Your task to perform on an android device: What's the US dollar exchange rate against the Brazilian Real? Image 0: 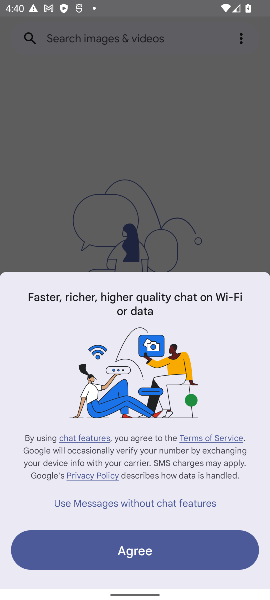
Step 0: press home button
Your task to perform on an android device: What's the US dollar exchange rate against the Brazilian Real? Image 1: 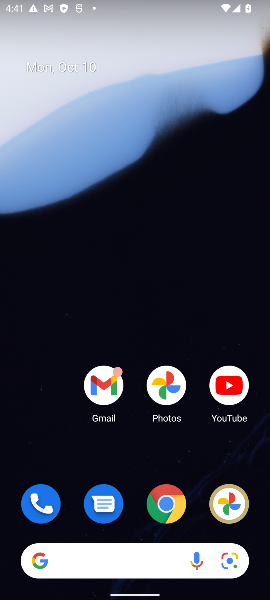
Step 1: drag from (129, 380) to (44, 318)
Your task to perform on an android device: What's the US dollar exchange rate against the Brazilian Real? Image 2: 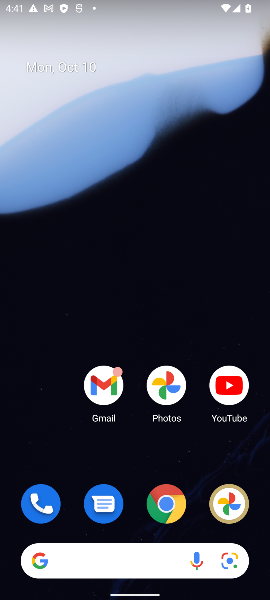
Step 2: drag from (159, 481) to (259, 11)
Your task to perform on an android device: What's the US dollar exchange rate against the Brazilian Real? Image 3: 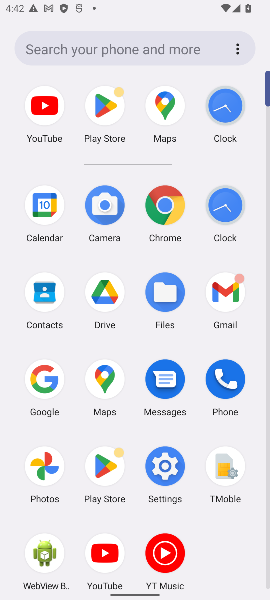
Step 3: click (153, 202)
Your task to perform on an android device: What's the US dollar exchange rate against the Brazilian Real? Image 4: 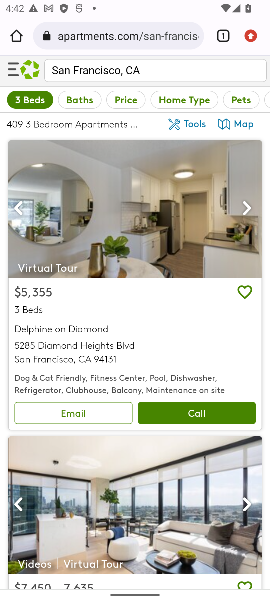
Step 4: click (98, 35)
Your task to perform on an android device: What's the US dollar exchange rate against the Brazilian Real? Image 5: 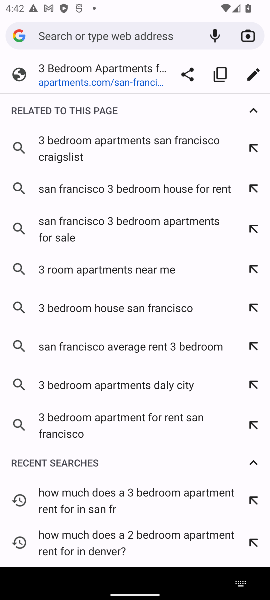
Step 5: type "What's the US dollar exchange rate against the Brazilian Real?"
Your task to perform on an android device: What's the US dollar exchange rate against the Brazilian Real? Image 6: 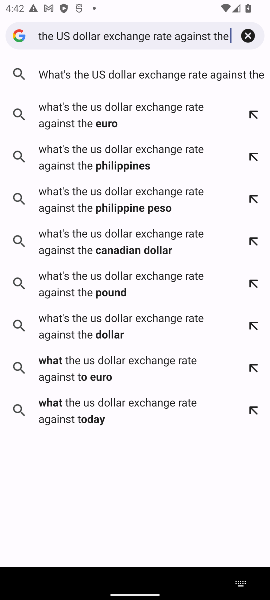
Step 6: press enter
Your task to perform on an android device: What's the US dollar exchange rate against the Brazilian Real? Image 7: 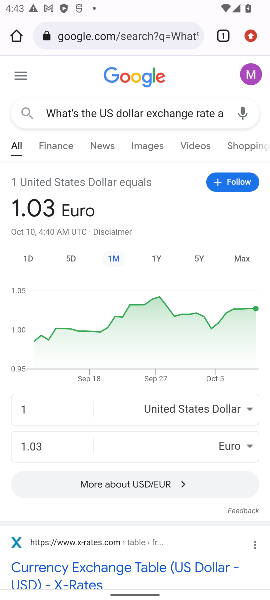
Step 7: task complete